Your task to perform on an android device: Search for seafood restaurants on Google Maps Image 0: 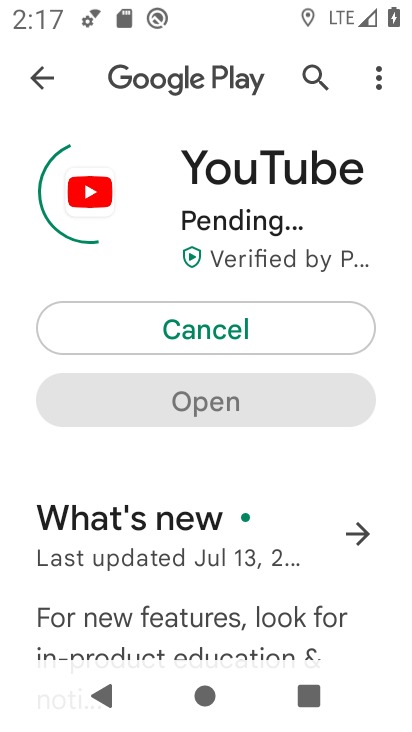
Step 0: press home button
Your task to perform on an android device: Search for seafood restaurants on Google Maps Image 1: 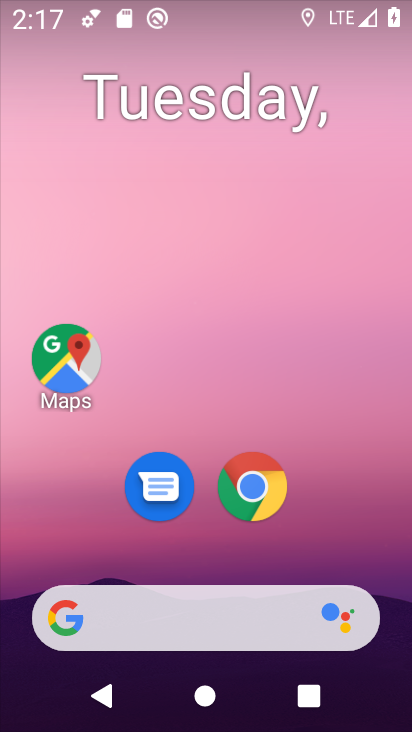
Step 1: drag from (328, 558) to (333, 81)
Your task to perform on an android device: Search for seafood restaurants on Google Maps Image 2: 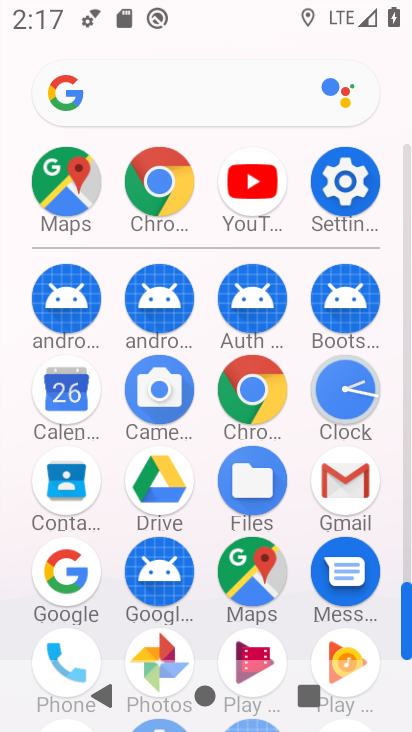
Step 2: click (250, 570)
Your task to perform on an android device: Search for seafood restaurants on Google Maps Image 3: 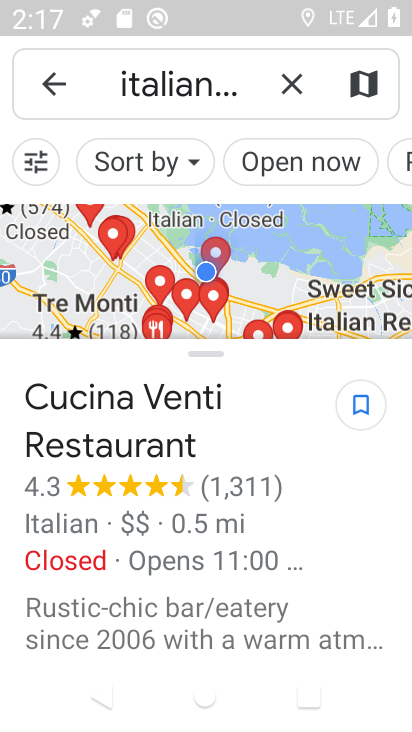
Step 3: press back button
Your task to perform on an android device: Search for seafood restaurants on Google Maps Image 4: 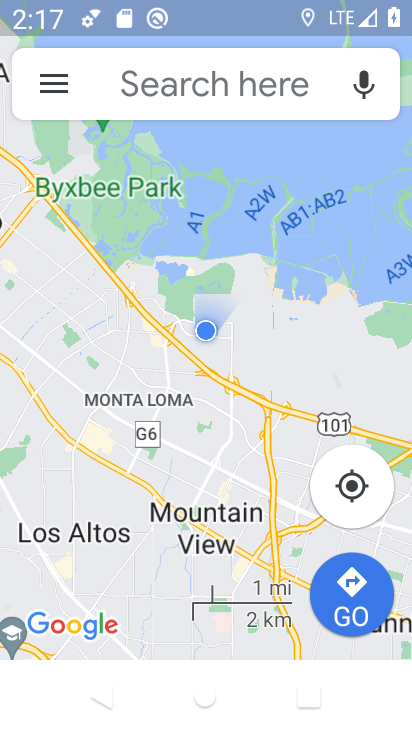
Step 4: click (237, 80)
Your task to perform on an android device: Search for seafood restaurants on Google Maps Image 5: 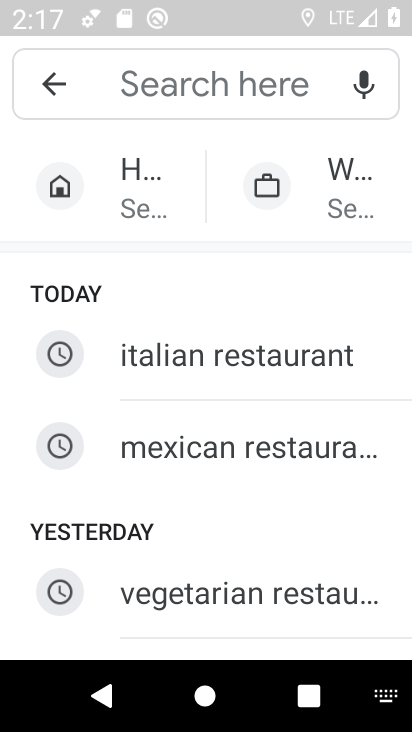
Step 5: type "seafood restaurants"
Your task to perform on an android device: Search for seafood restaurants on Google Maps Image 6: 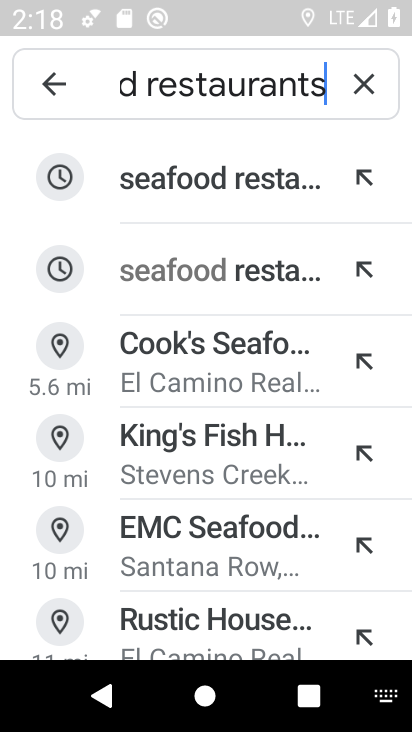
Step 6: click (300, 188)
Your task to perform on an android device: Search for seafood restaurants on Google Maps Image 7: 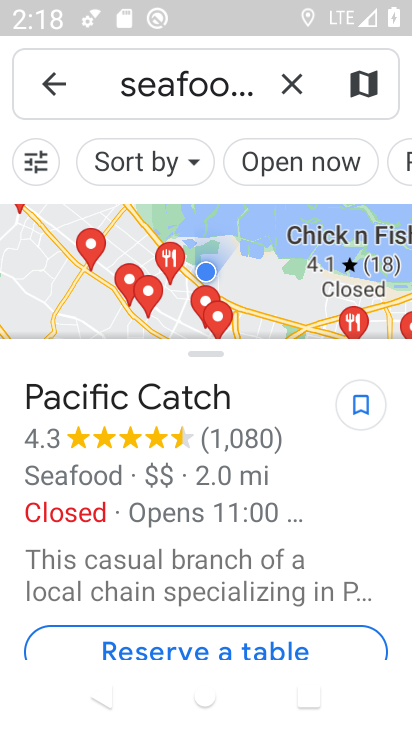
Step 7: task complete